Your task to perform on an android device: What is the news today? Image 0: 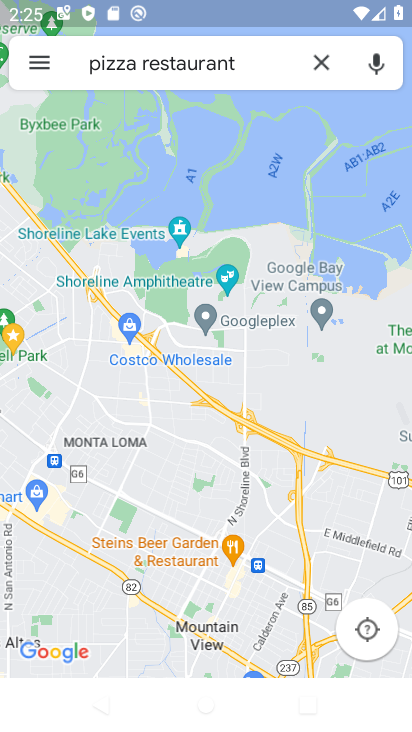
Step 0: press home button
Your task to perform on an android device: What is the news today? Image 1: 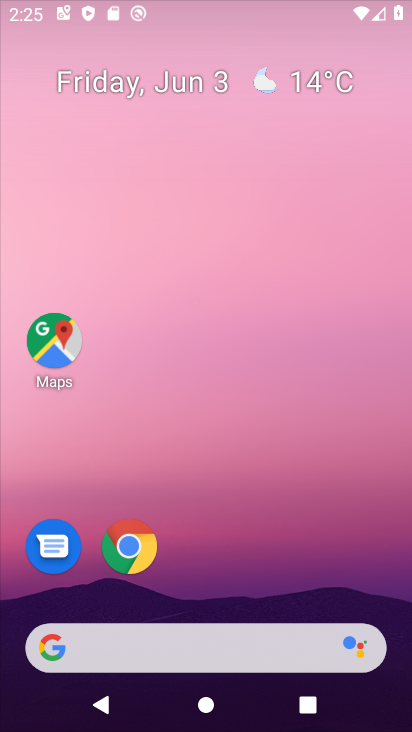
Step 1: drag from (294, 448) to (281, 16)
Your task to perform on an android device: What is the news today? Image 2: 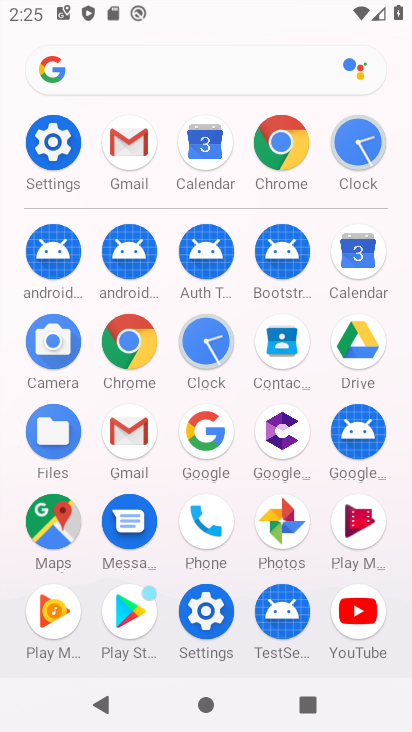
Step 2: click (271, 120)
Your task to perform on an android device: What is the news today? Image 3: 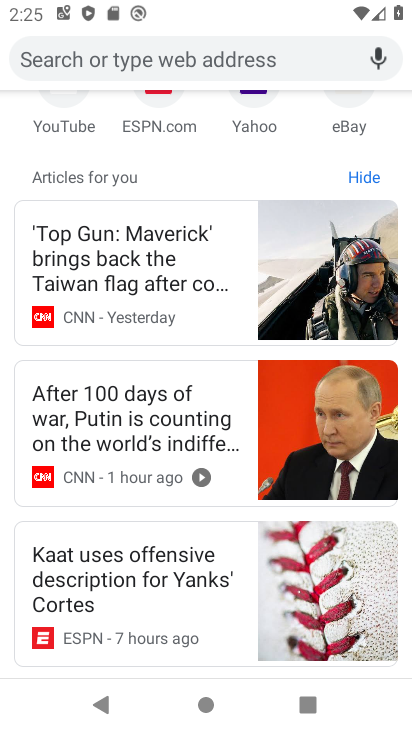
Step 3: task complete